Your task to perform on an android device: Open the web browser Image 0: 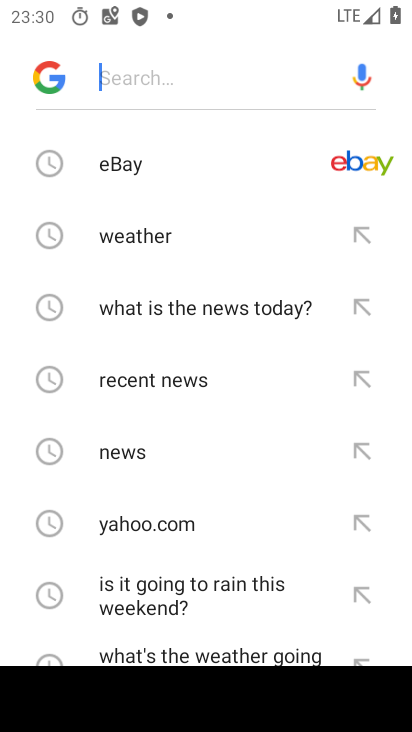
Step 0: press home button
Your task to perform on an android device: Open the web browser Image 1: 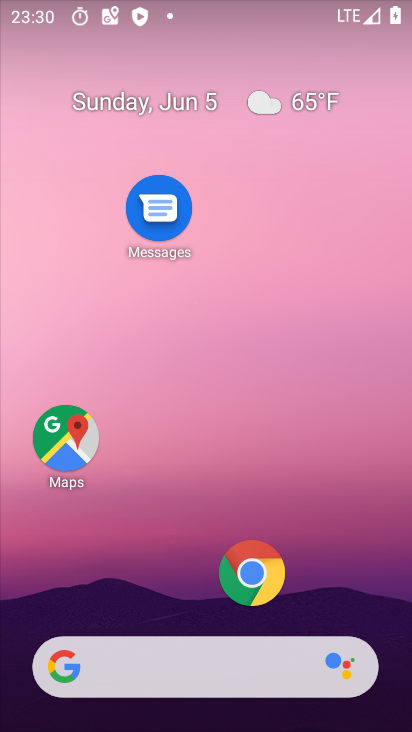
Step 1: click (249, 573)
Your task to perform on an android device: Open the web browser Image 2: 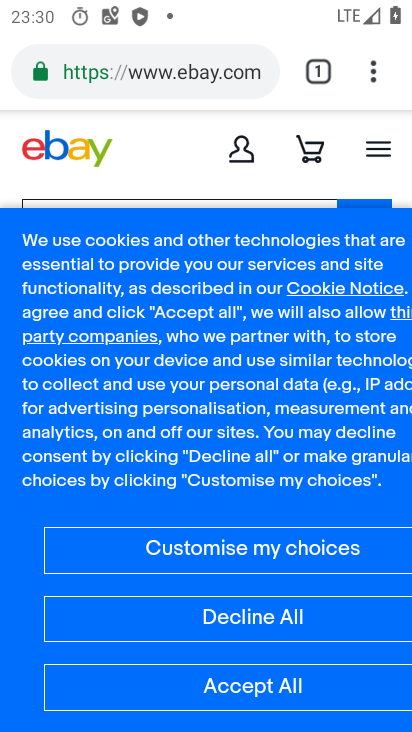
Step 2: task complete